Your task to perform on an android device: Open location settings Image 0: 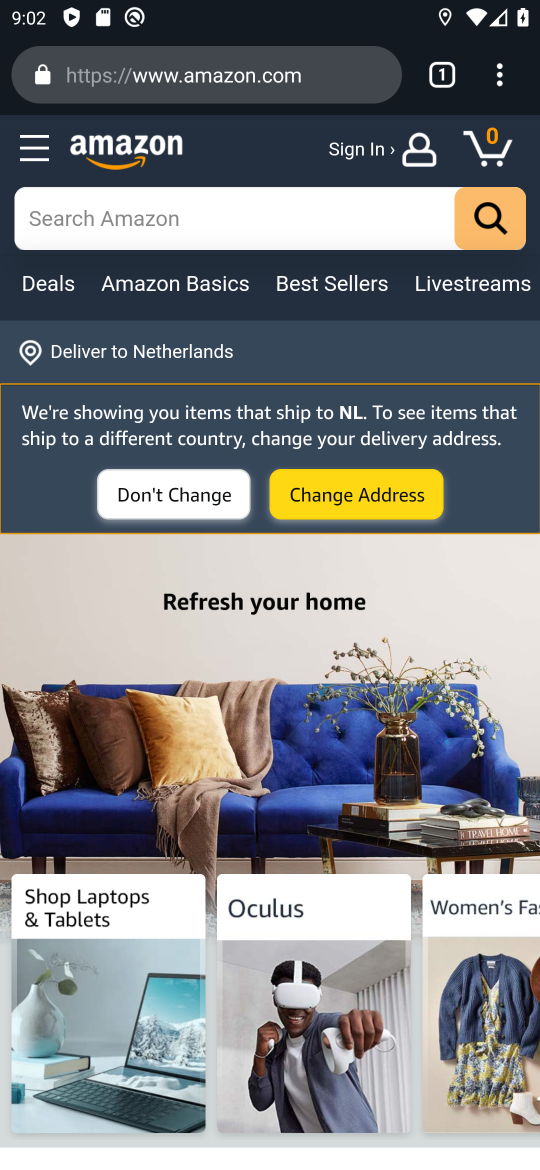
Step 0: press home button
Your task to perform on an android device: Open location settings Image 1: 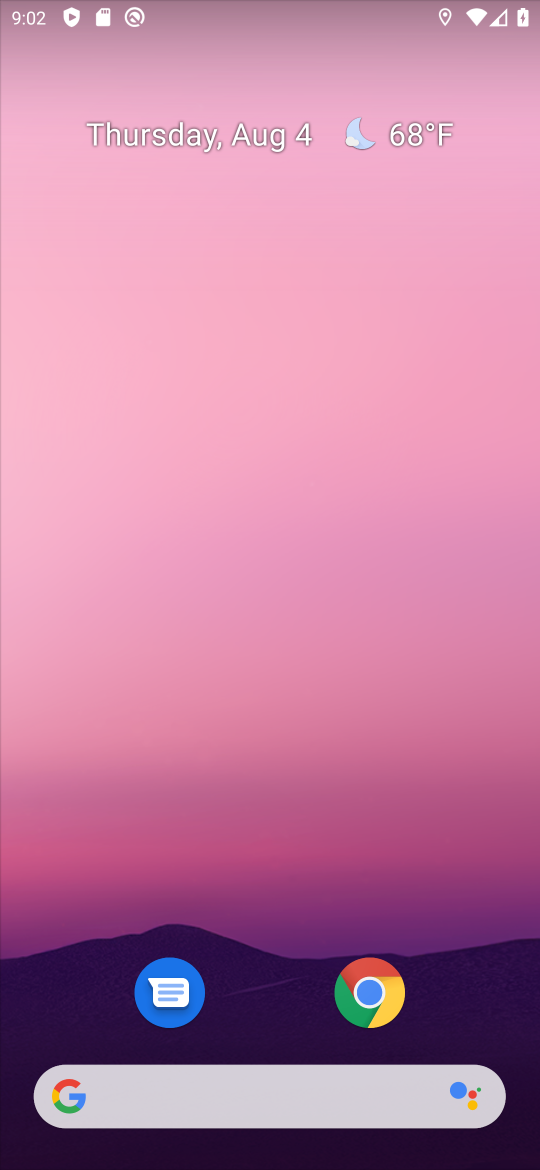
Step 1: drag from (90, 776) to (207, 402)
Your task to perform on an android device: Open location settings Image 2: 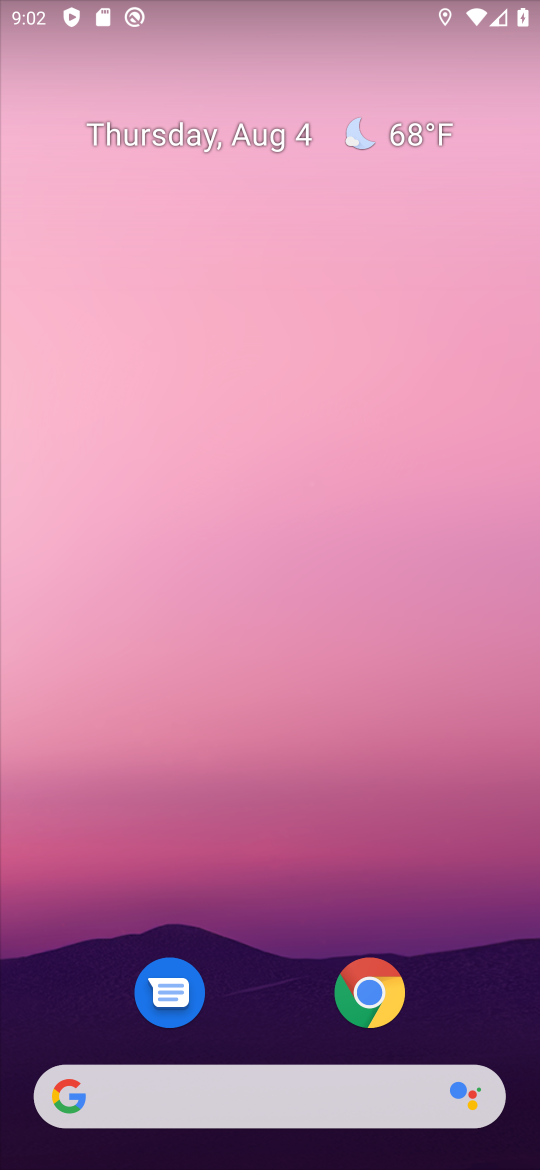
Step 2: drag from (155, 529) to (303, 3)
Your task to perform on an android device: Open location settings Image 3: 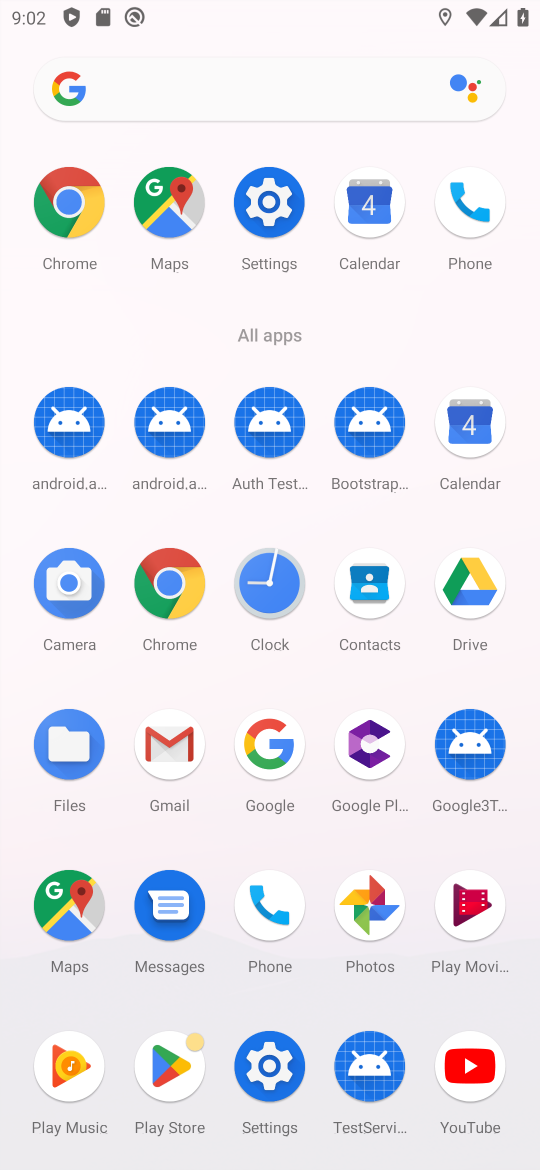
Step 3: click (284, 221)
Your task to perform on an android device: Open location settings Image 4: 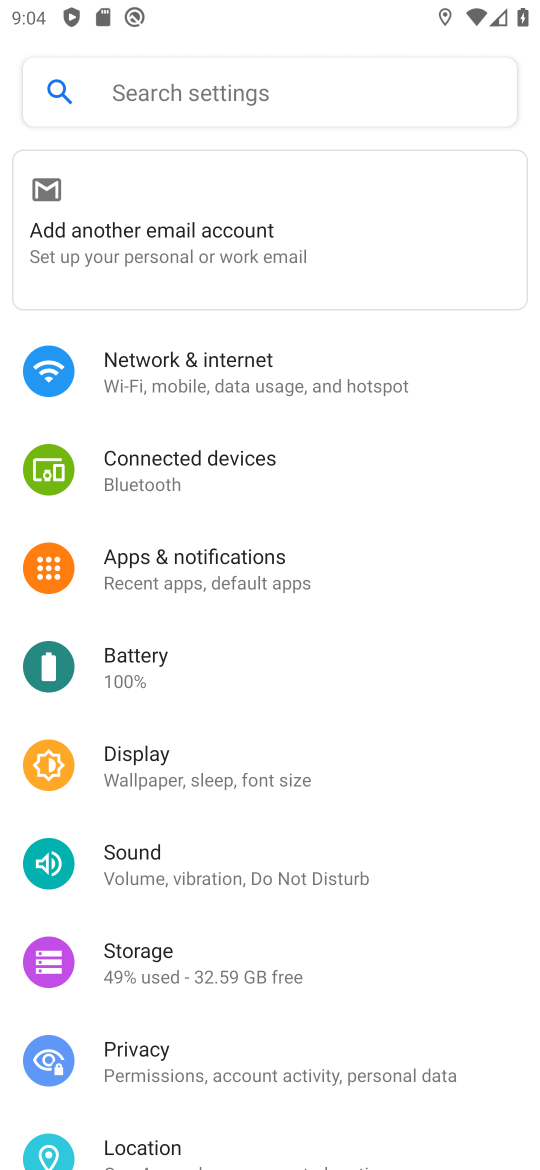
Step 4: click (216, 1147)
Your task to perform on an android device: Open location settings Image 5: 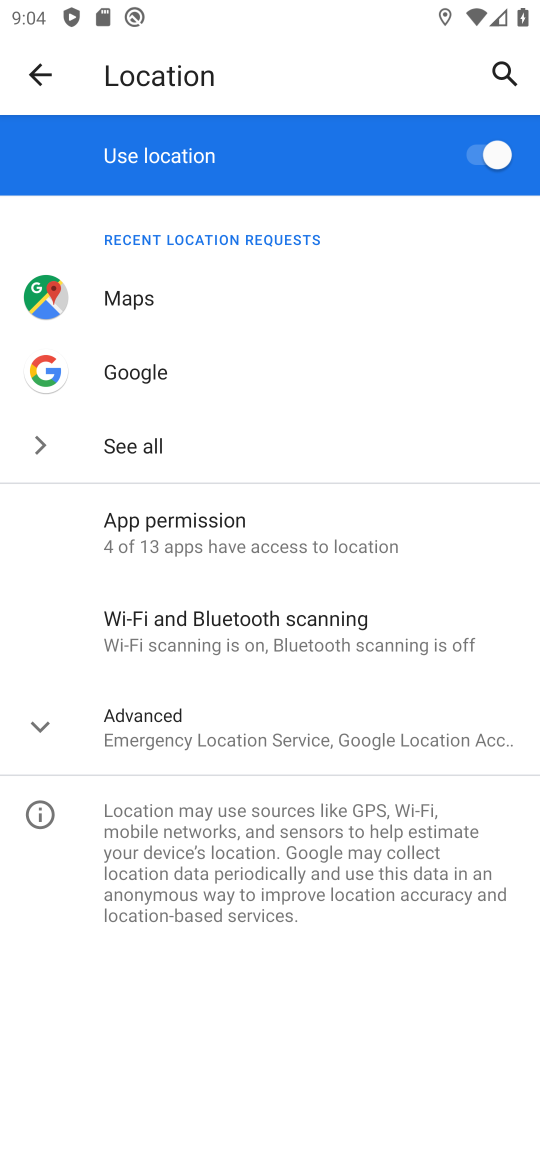
Step 5: task complete